Your task to perform on an android device: Open network settings Image 0: 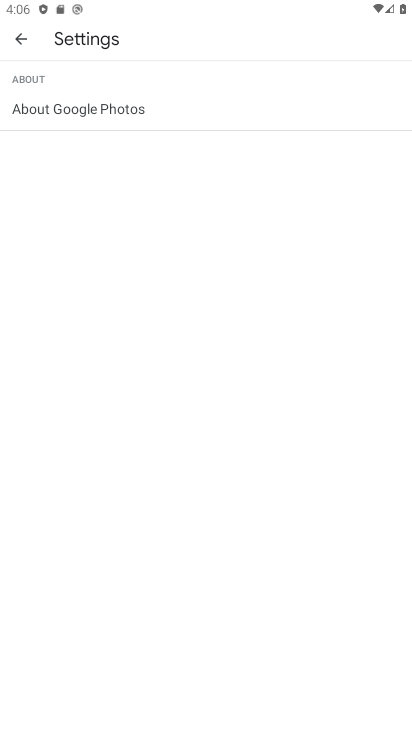
Step 0: press home button
Your task to perform on an android device: Open network settings Image 1: 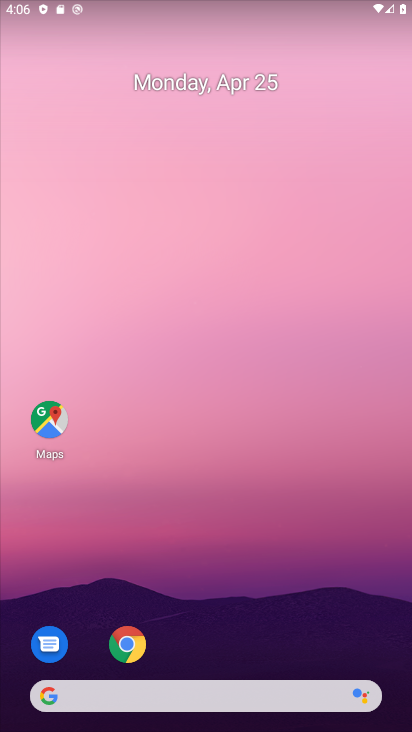
Step 1: drag from (208, 643) to (196, 133)
Your task to perform on an android device: Open network settings Image 2: 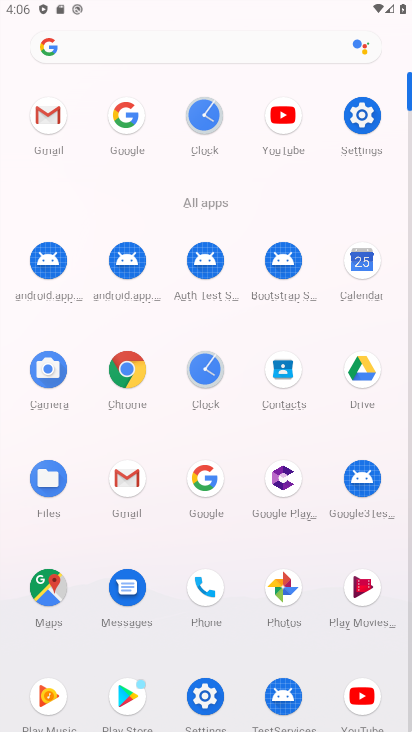
Step 2: click (371, 127)
Your task to perform on an android device: Open network settings Image 3: 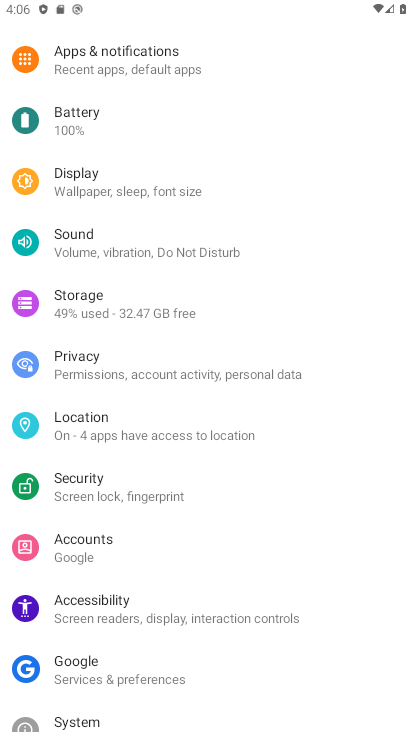
Step 3: drag from (152, 173) to (204, 576)
Your task to perform on an android device: Open network settings Image 4: 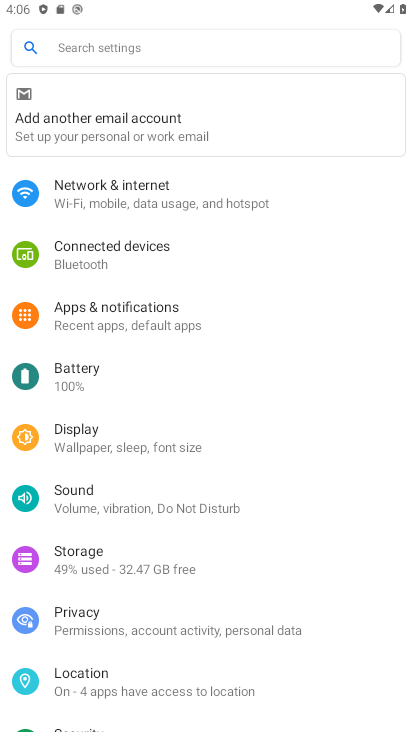
Step 4: click (128, 194)
Your task to perform on an android device: Open network settings Image 5: 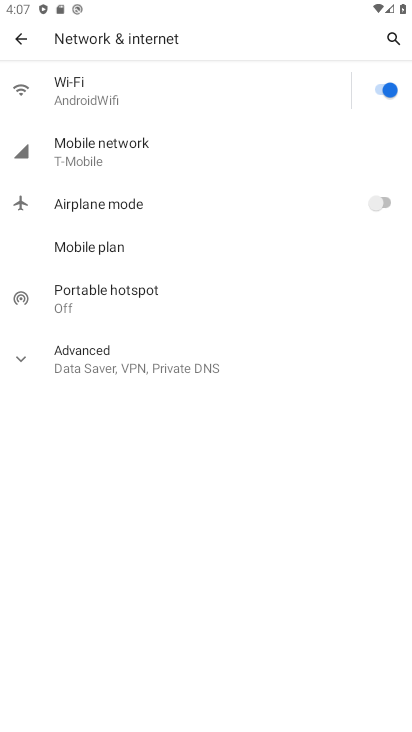
Step 5: task complete